Your task to perform on an android device: Show me the alarms in the clock app Image 0: 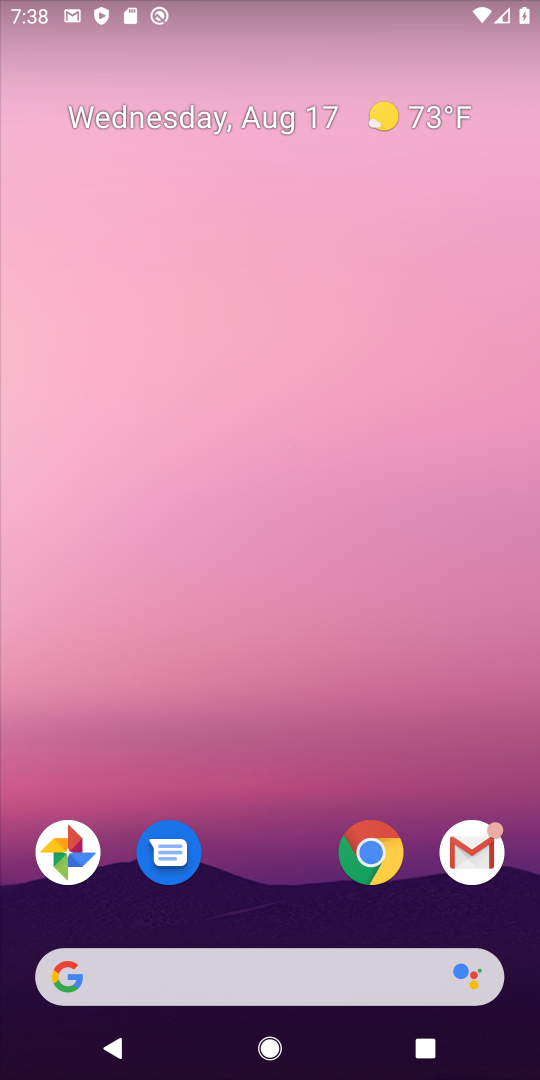
Step 0: drag from (260, 868) to (255, 171)
Your task to perform on an android device: Show me the alarms in the clock app Image 1: 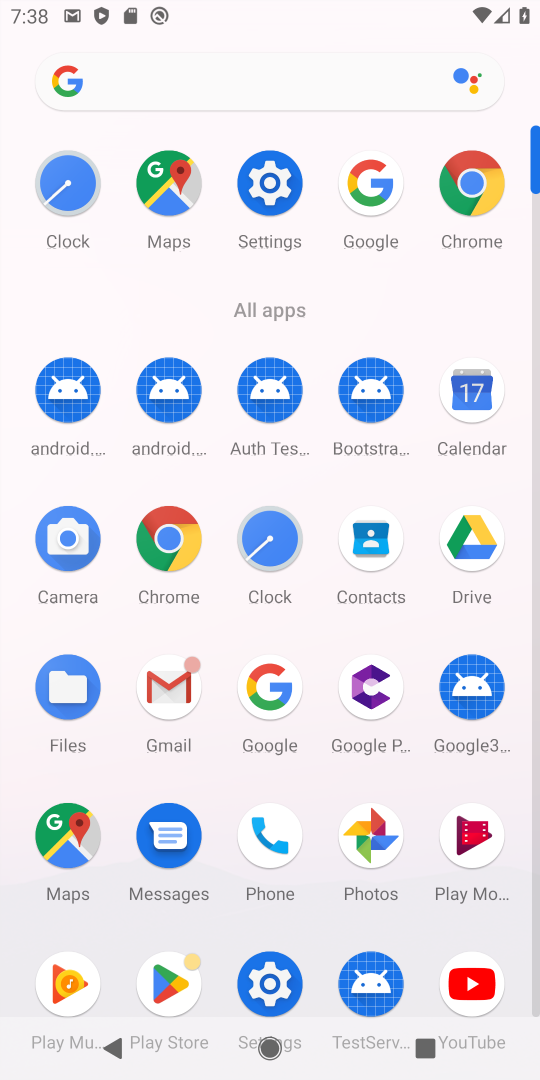
Step 1: click (71, 183)
Your task to perform on an android device: Show me the alarms in the clock app Image 2: 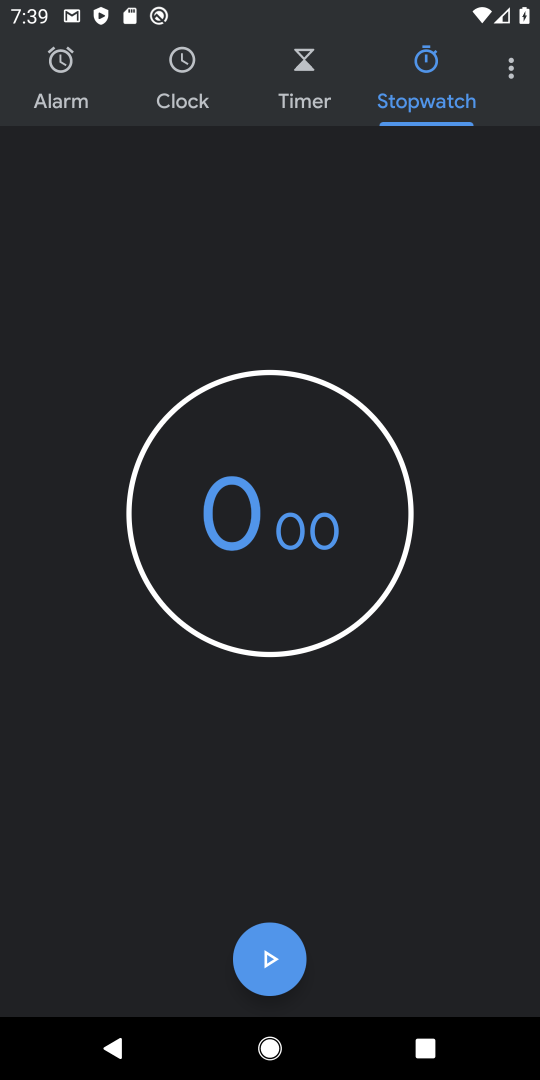
Step 2: click (53, 65)
Your task to perform on an android device: Show me the alarms in the clock app Image 3: 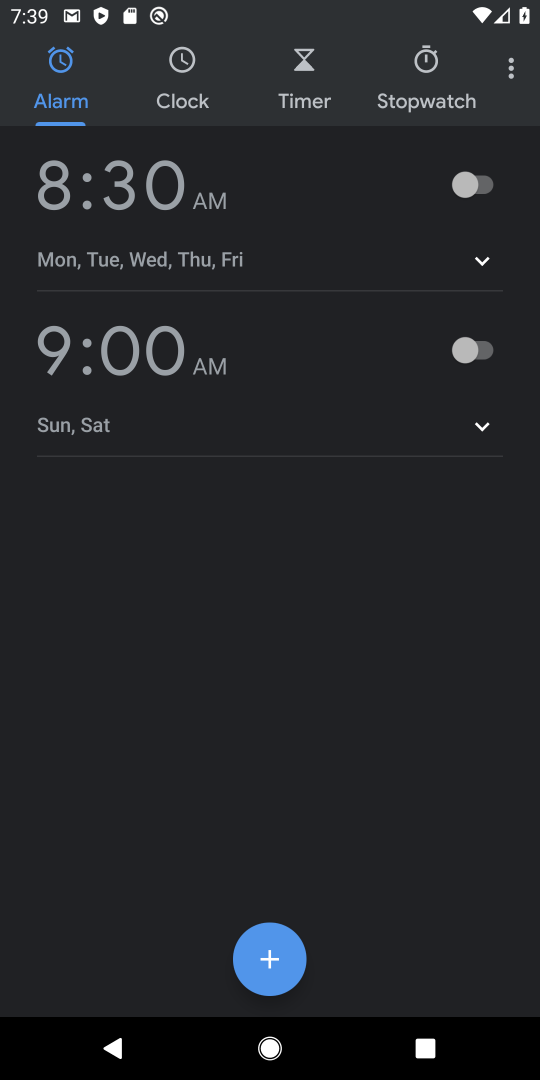
Step 3: task complete